Your task to perform on an android device: What is the recent news? Image 0: 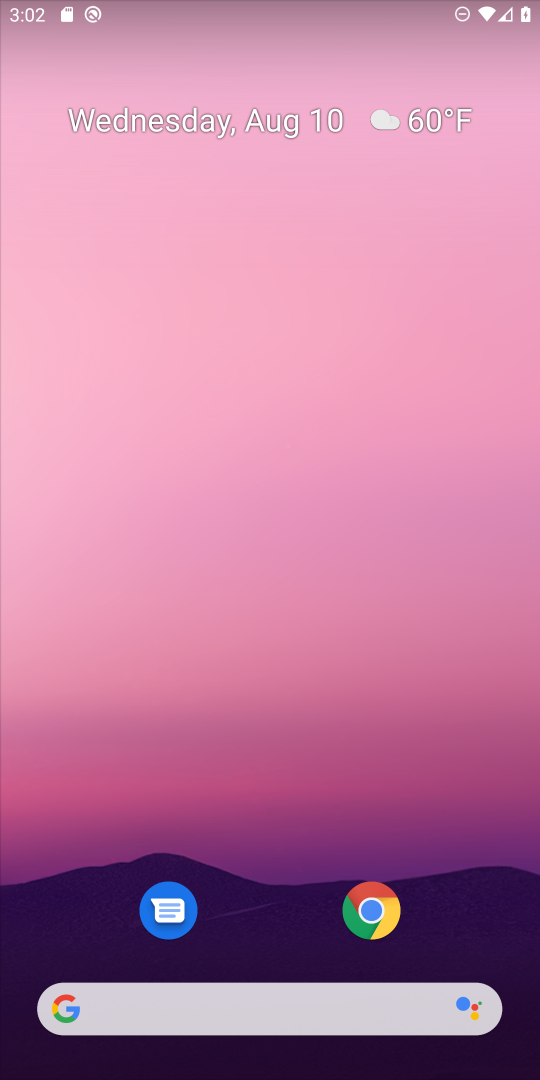
Step 0: click (232, 997)
Your task to perform on an android device: What is the recent news? Image 1: 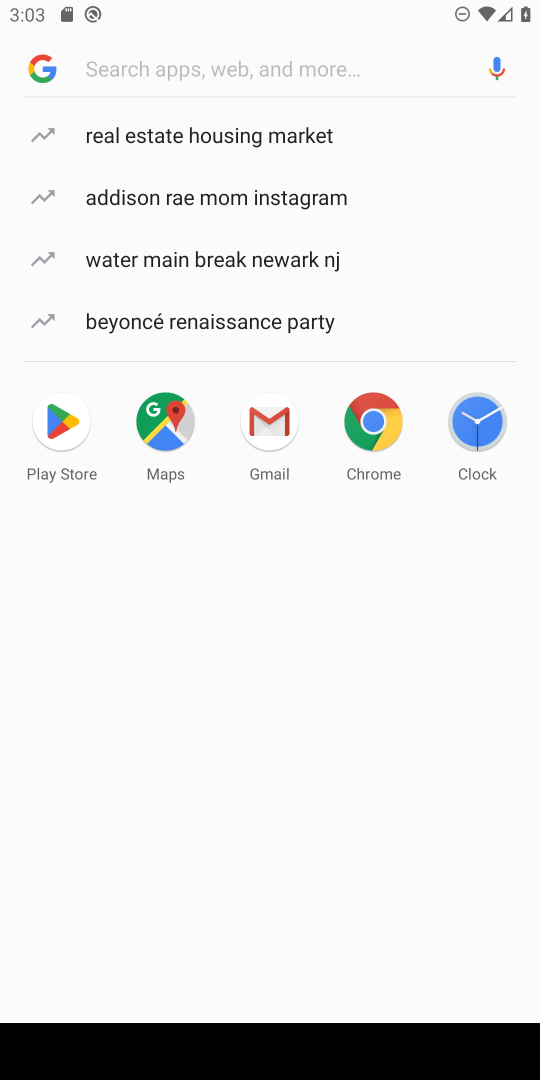
Step 1: type "recent news"
Your task to perform on an android device: What is the recent news? Image 2: 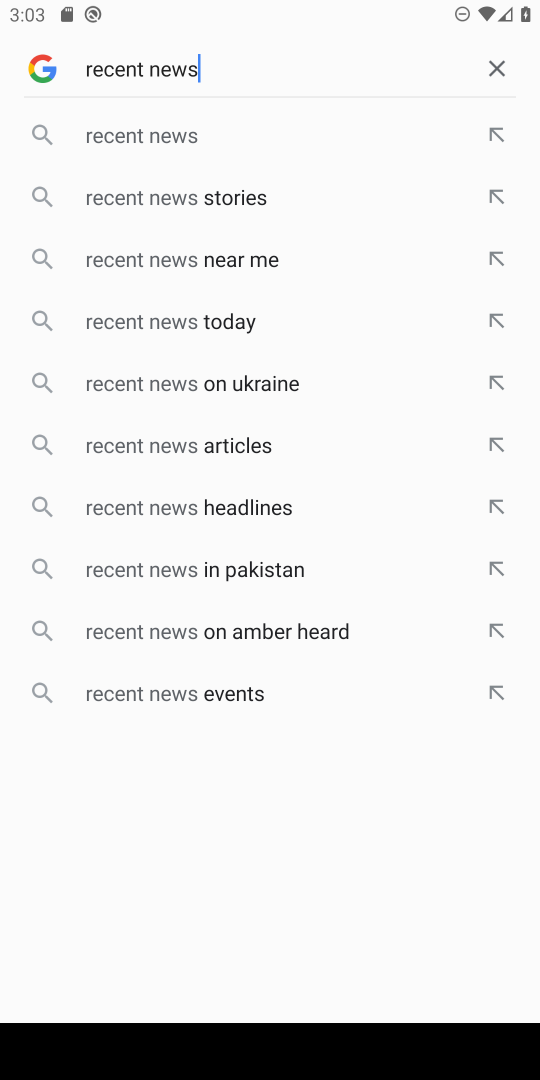
Step 2: click (156, 137)
Your task to perform on an android device: What is the recent news? Image 3: 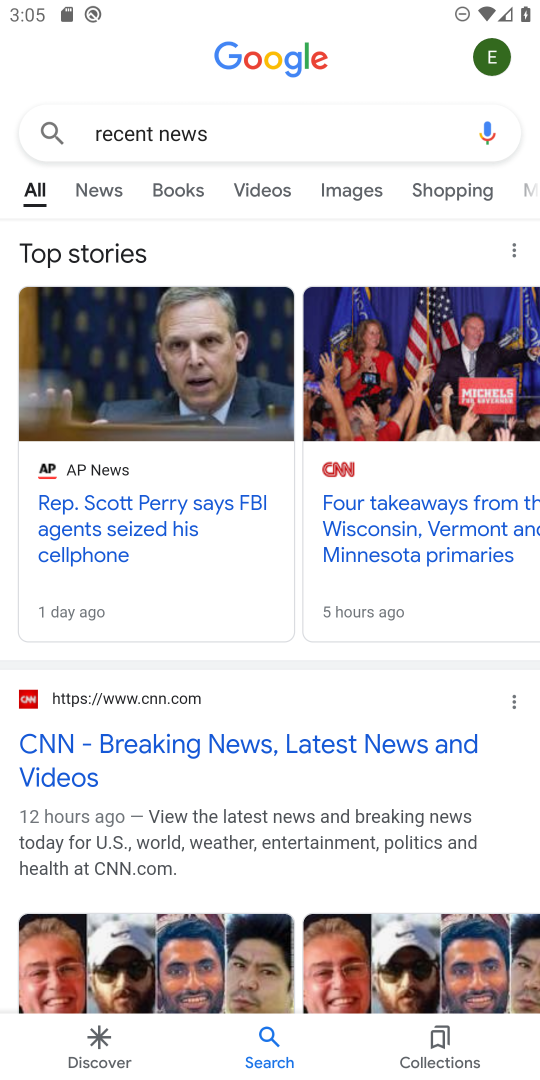
Step 3: task complete